Your task to perform on an android device: turn on improve location accuracy Image 0: 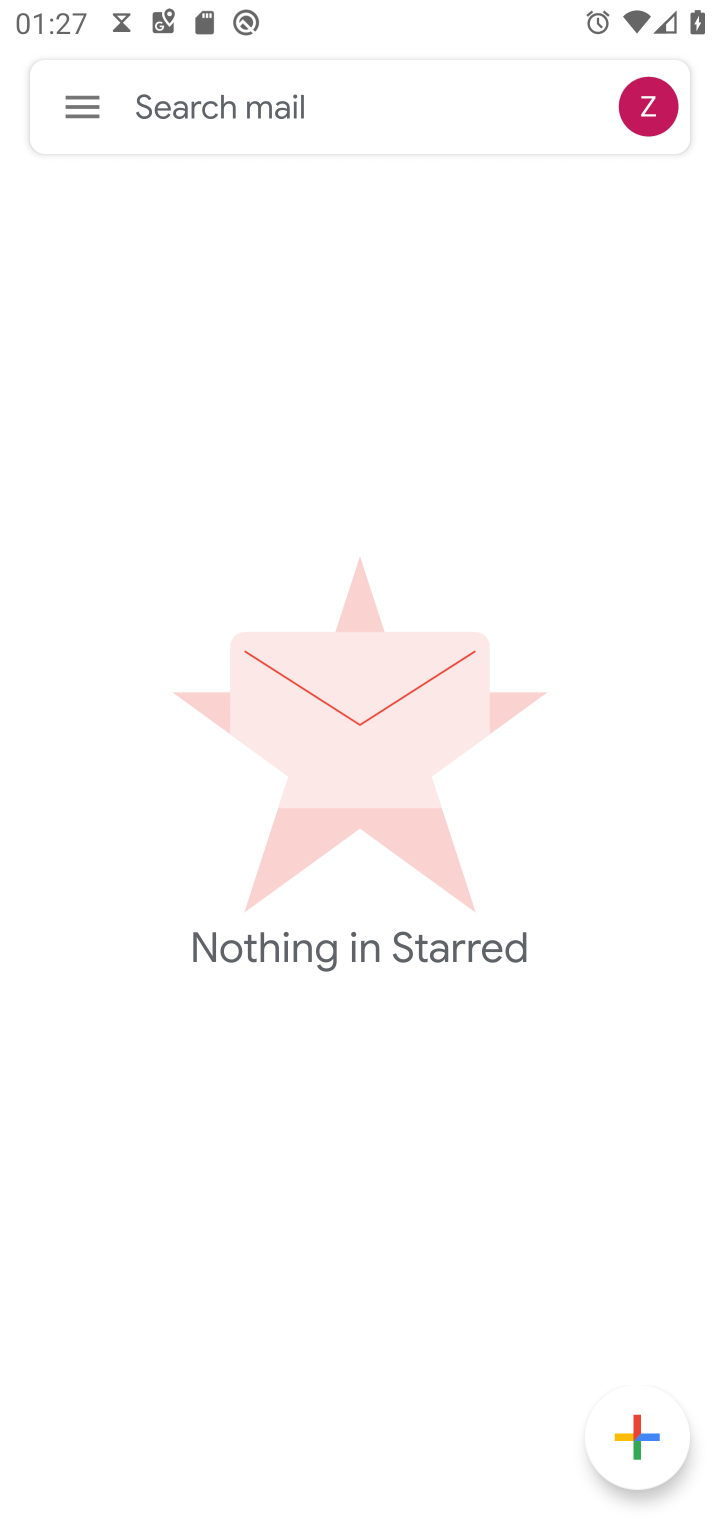
Step 0: press home button
Your task to perform on an android device: turn on improve location accuracy Image 1: 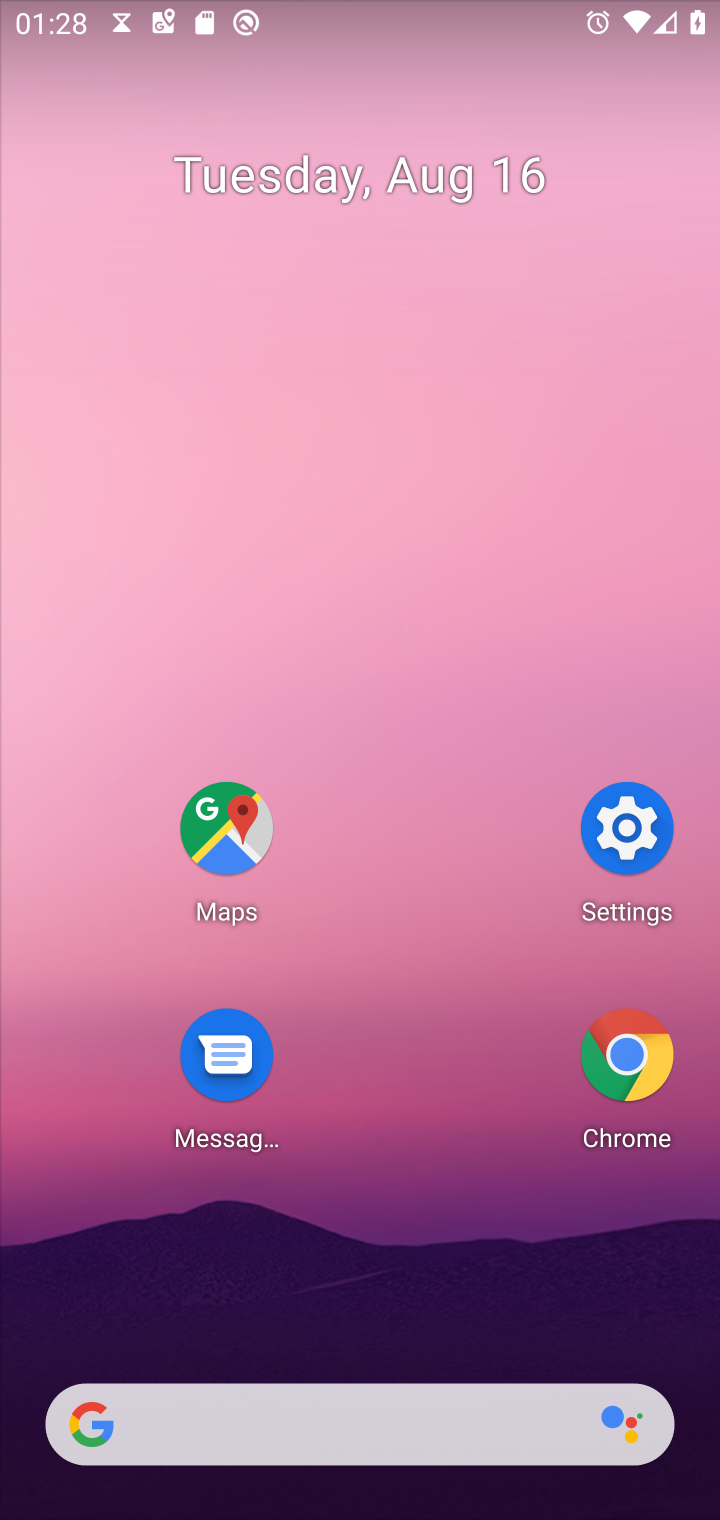
Step 1: click (645, 826)
Your task to perform on an android device: turn on improve location accuracy Image 2: 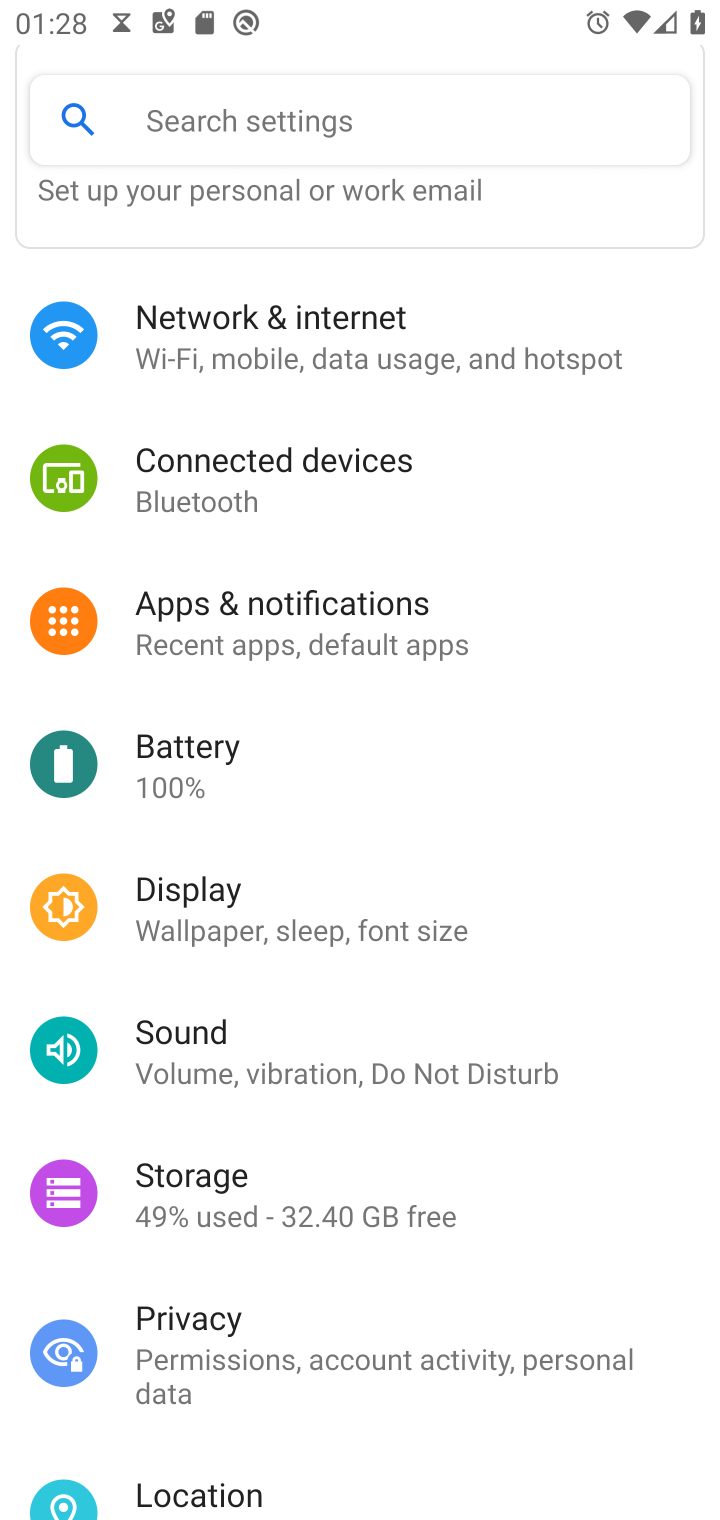
Step 2: drag from (394, 1319) to (656, 220)
Your task to perform on an android device: turn on improve location accuracy Image 3: 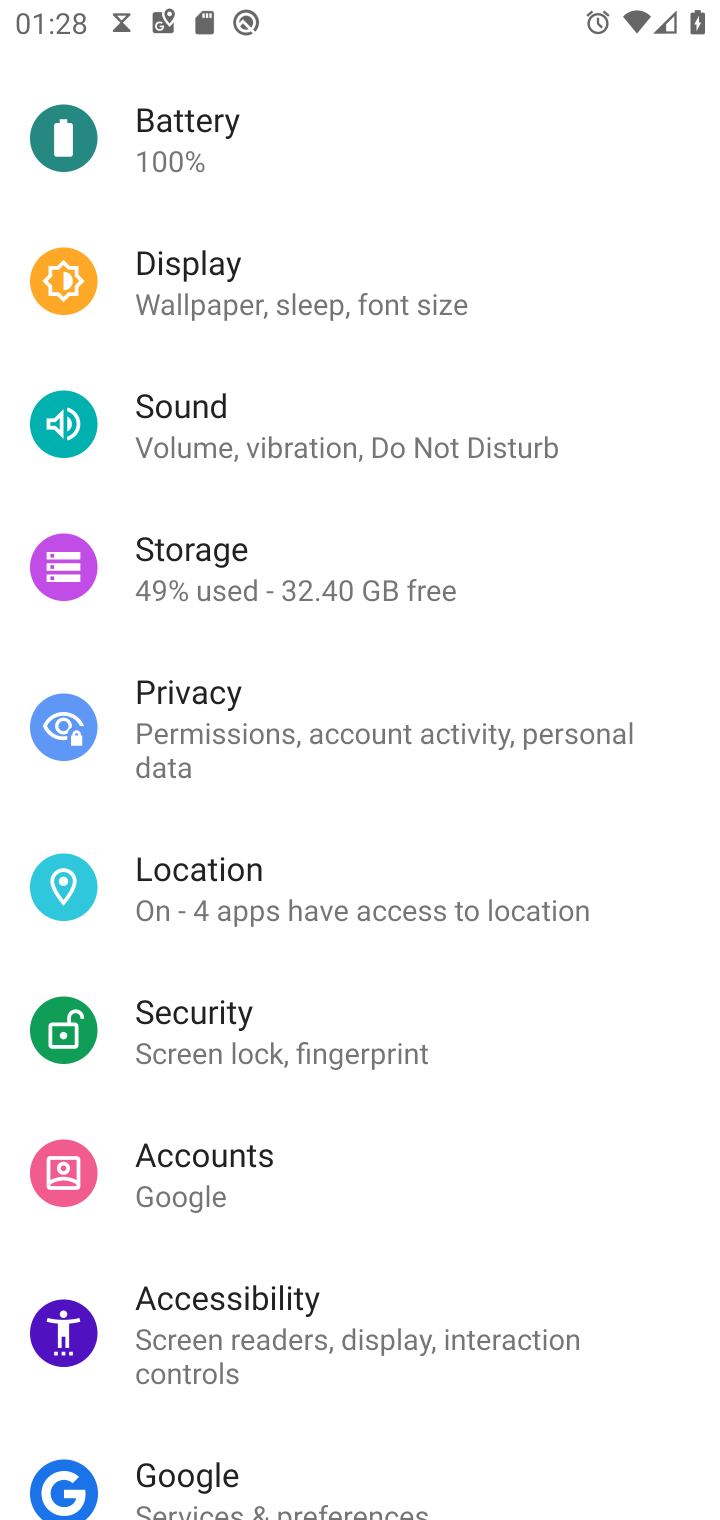
Step 3: click (229, 881)
Your task to perform on an android device: turn on improve location accuracy Image 4: 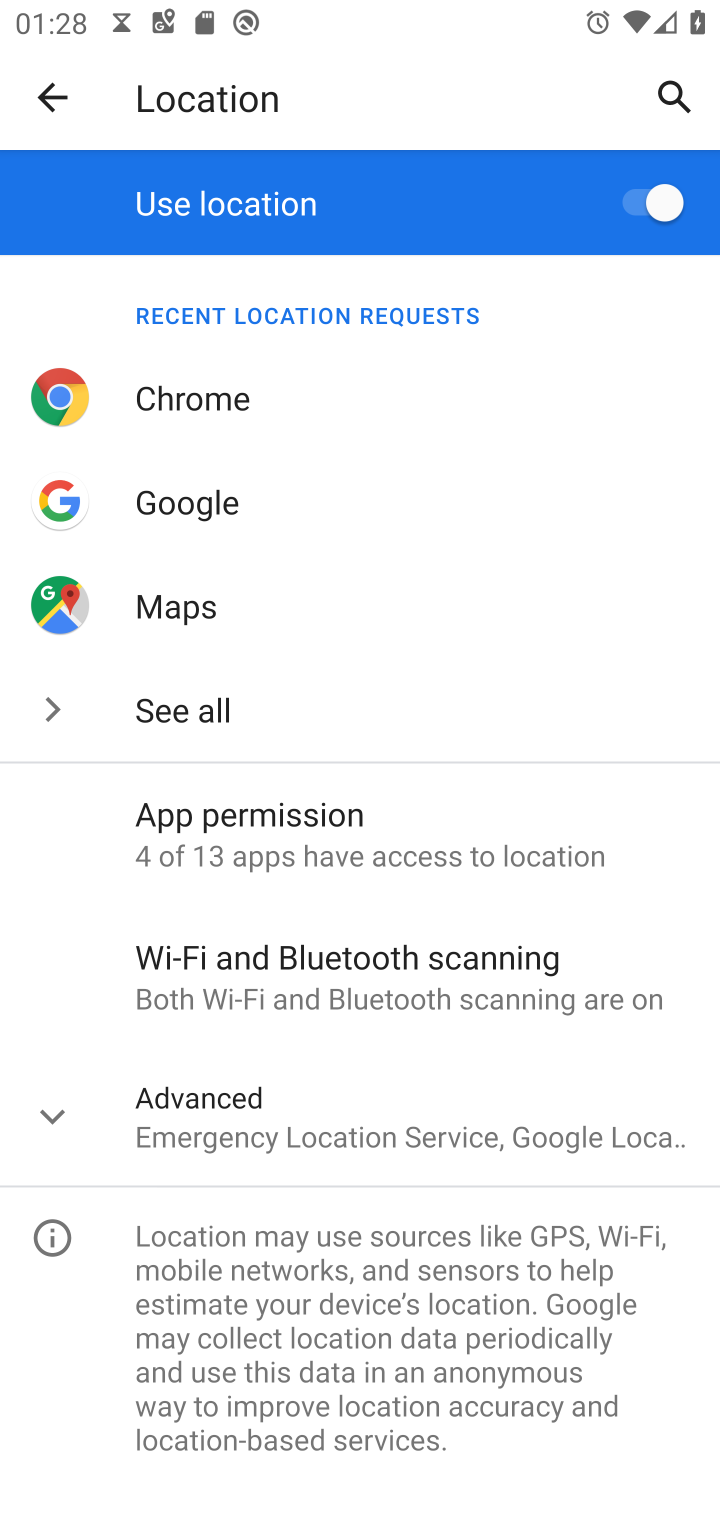
Step 4: drag from (442, 1101) to (690, 346)
Your task to perform on an android device: turn on improve location accuracy Image 5: 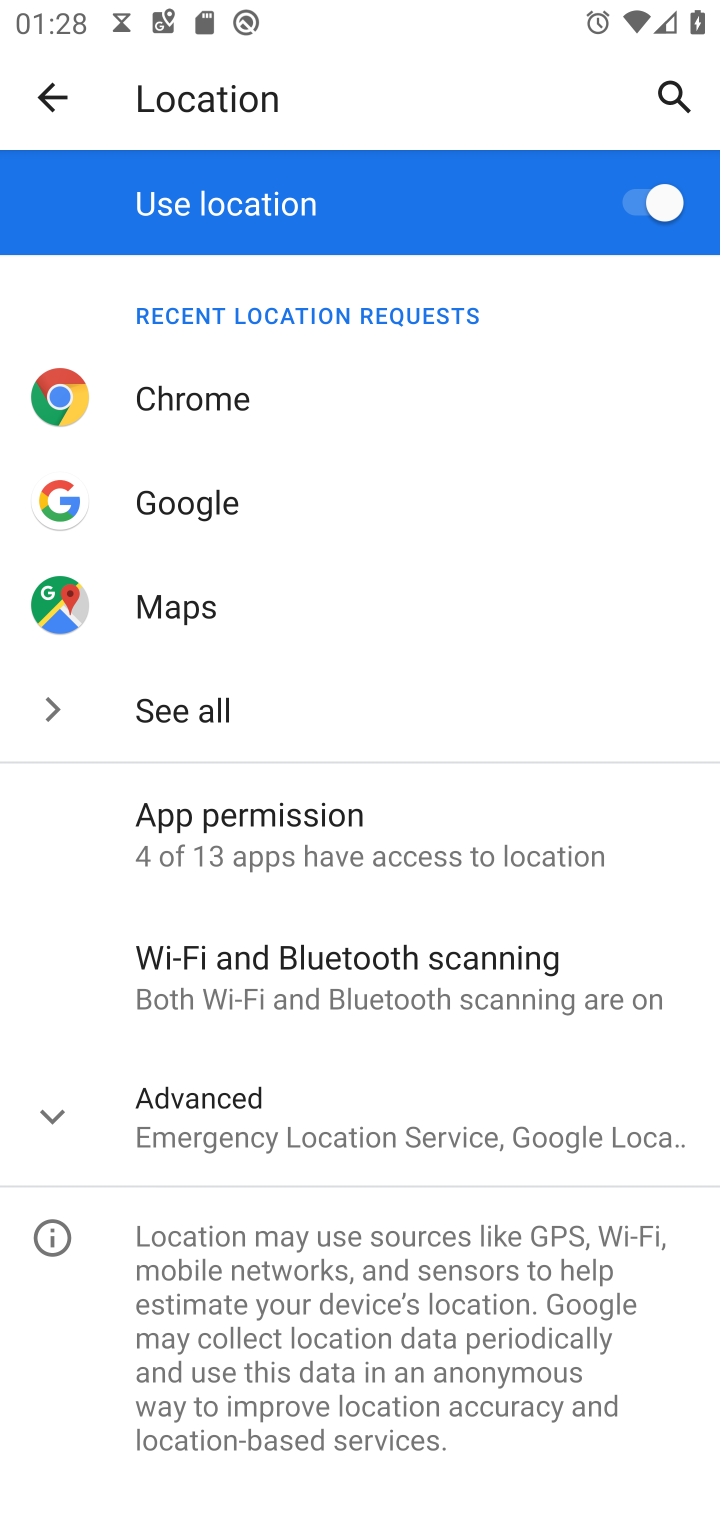
Step 5: click (299, 1141)
Your task to perform on an android device: turn on improve location accuracy Image 6: 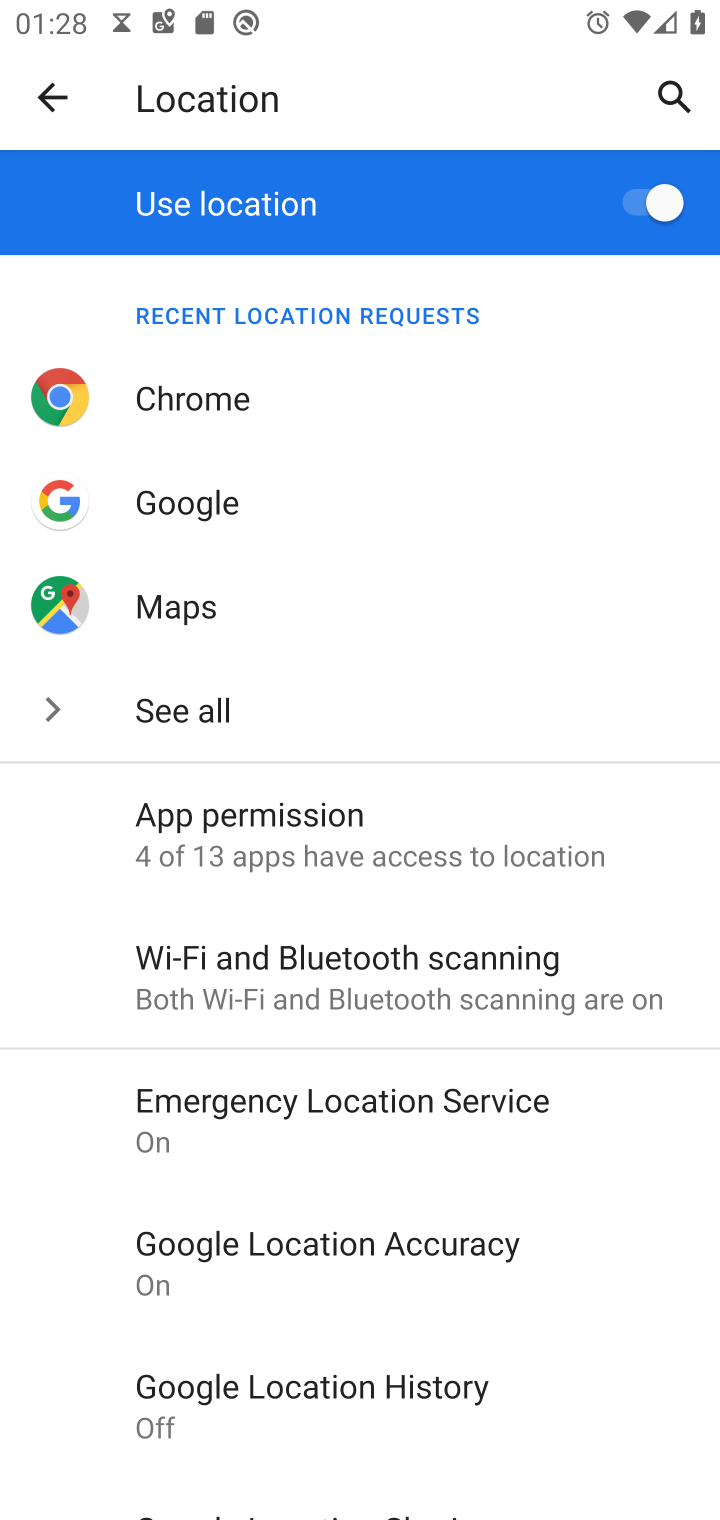
Step 6: click (287, 1251)
Your task to perform on an android device: turn on improve location accuracy Image 7: 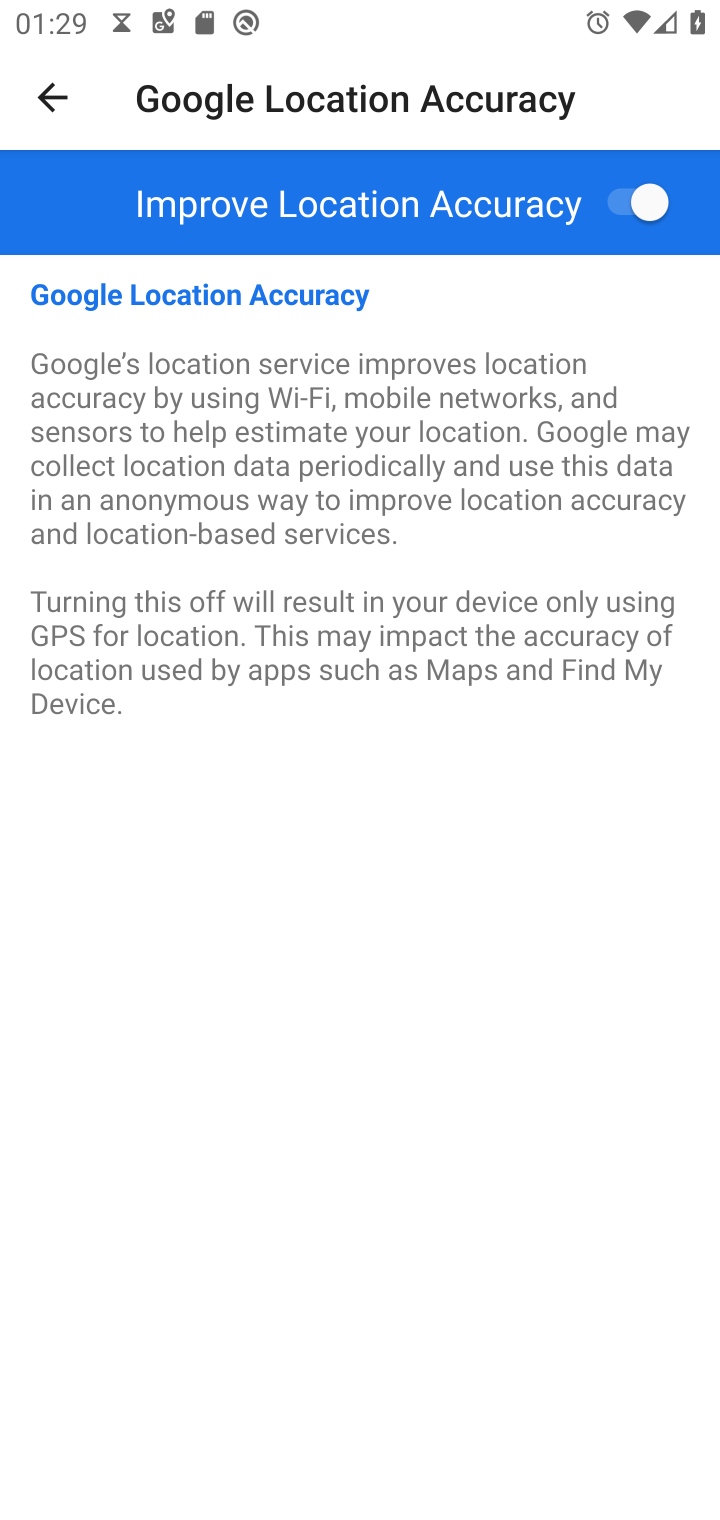
Step 7: task complete